Your task to perform on an android device: toggle data saver in the chrome app Image 0: 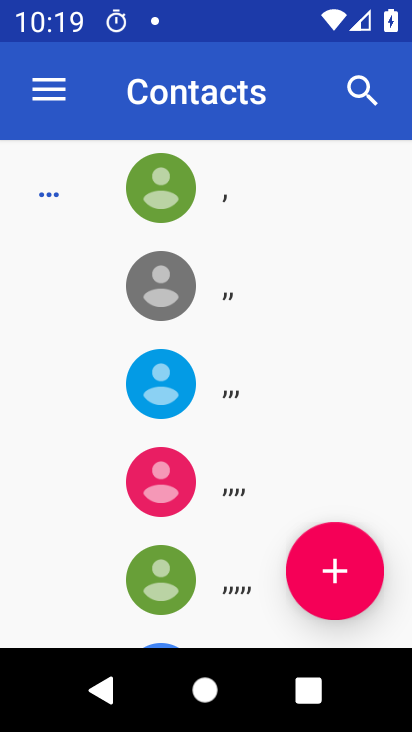
Step 0: press back button
Your task to perform on an android device: toggle data saver in the chrome app Image 1: 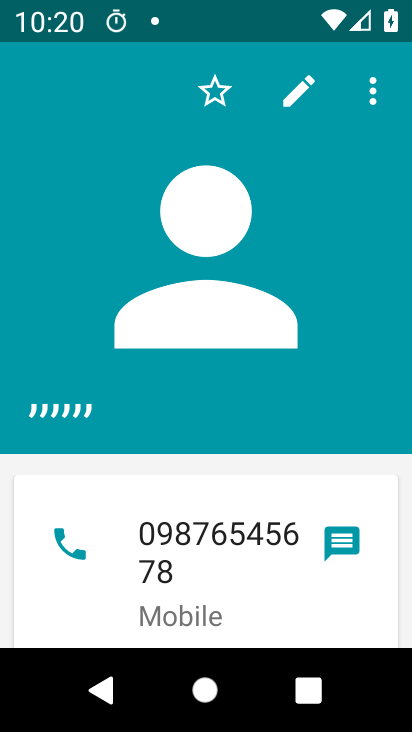
Step 1: press back button
Your task to perform on an android device: toggle data saver in the chrome app Image 2: 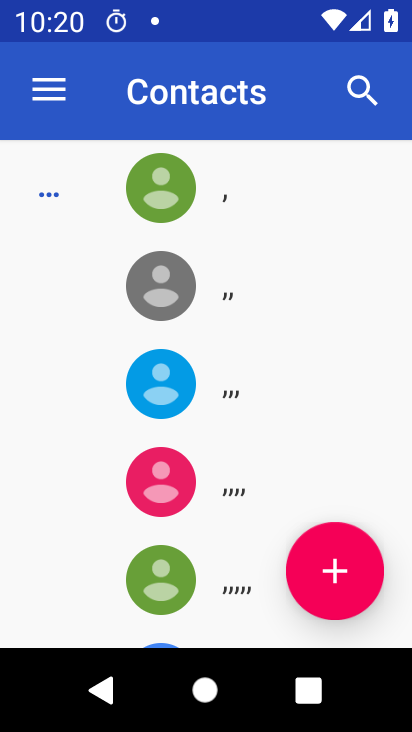
Step 2: press home button
Your task to perform on an android device: toggle data saver in the chrome app Image 3: 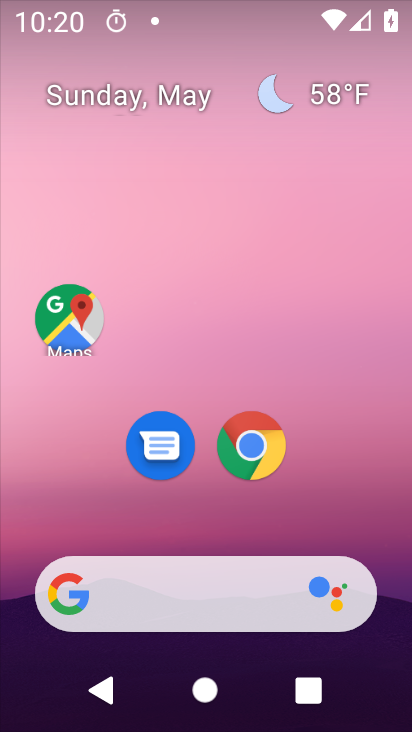
Step 3: drag from (324, 450) to (250, 9)
Your task to perform on an android device: toggle data saver in the chrome app Image 4: 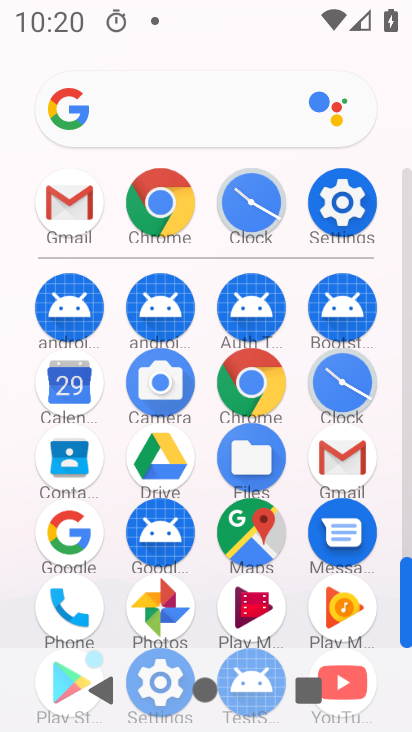
Step 4: click (153, 207)
Your task to perform on an android device: toggle data saver in the chrome app Image 5: 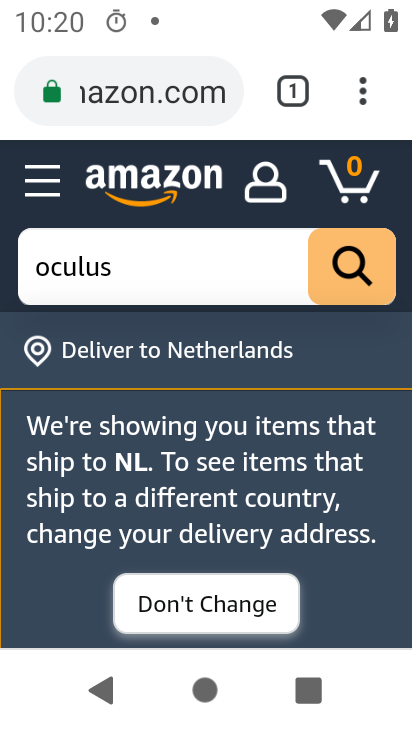
Step 5: drag from (361, 88) to (138, 459)
Your task to perform on an android device: toggle data saver in the chrome app Image 6: 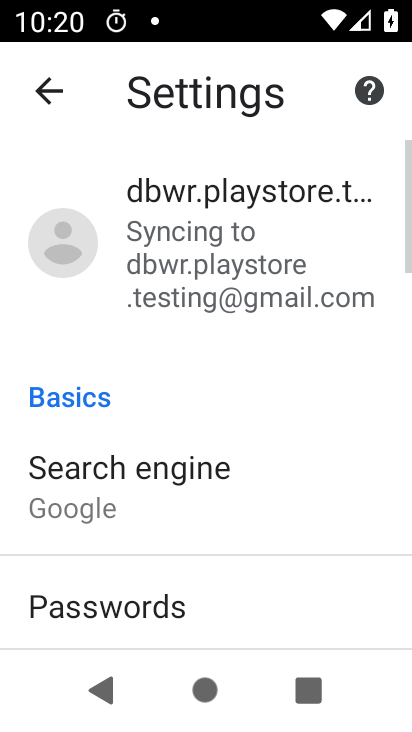
Step 6: drag from (218, 533) to (243, 146)
Your task to perform on an android device: toggle data saver in the chrome app Image 7: 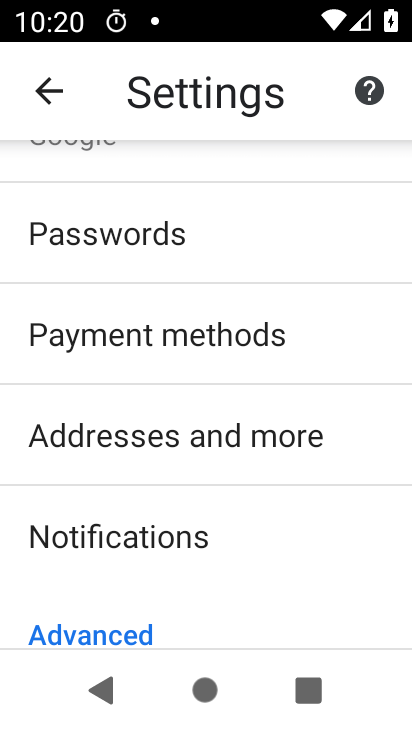
Step 7: drag from (265, 506) to (302, 152)
Your task to perform on an android device: toggle data saver in the chrome app Image 8: 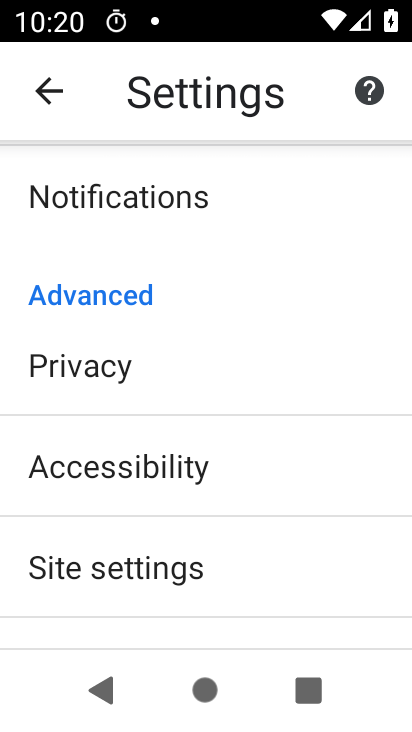
Step 8: drag from (331, 582) to (298, 142)
Your task to perform on an android device: toggle data saver in the chrome app Image 9: 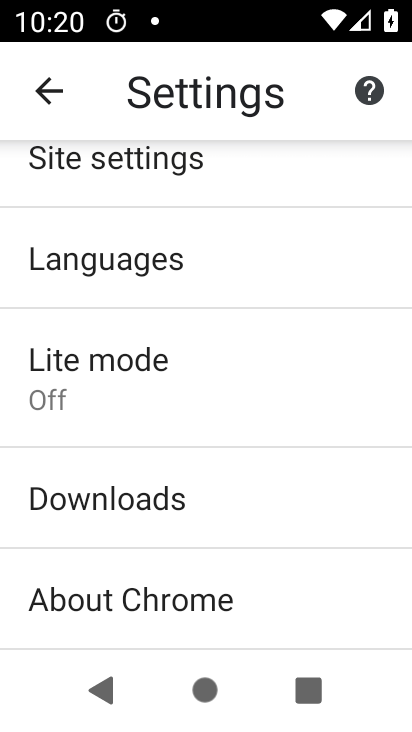
Step 9: drag from (285, 583) to (276, 202)
Your task to perform on an android device: toggle data saver in the chrome app Image 10: 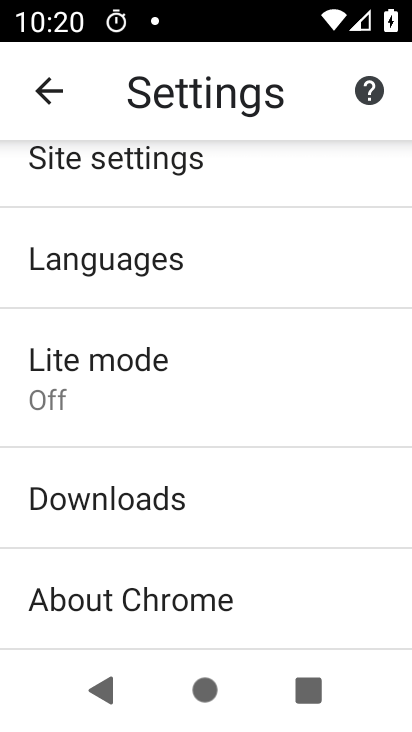
Step 10: click (165, 354)
Your task to perform on an android device: toggle data saver in the chrome app Image 11: 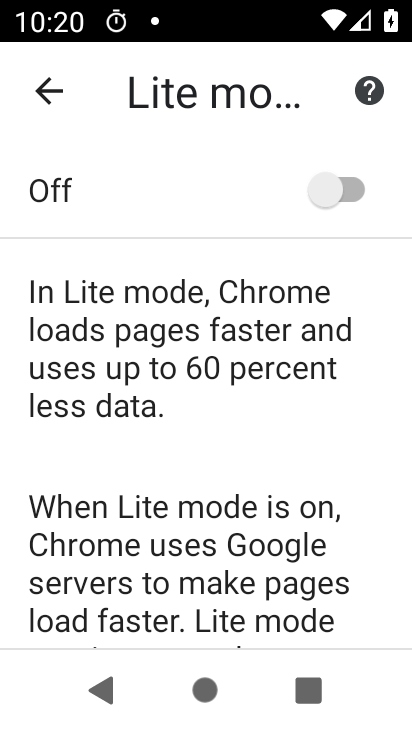
Step 11: click (342, 171)
Your task to perform on an android device: toggle data saver in the chrome app Image 12: 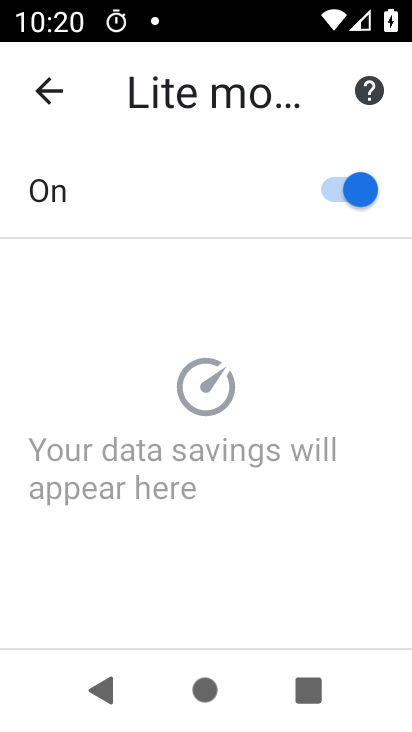
Step 12: task complete